Your task to perform on an android device: find photos in the google photos app Image 0: 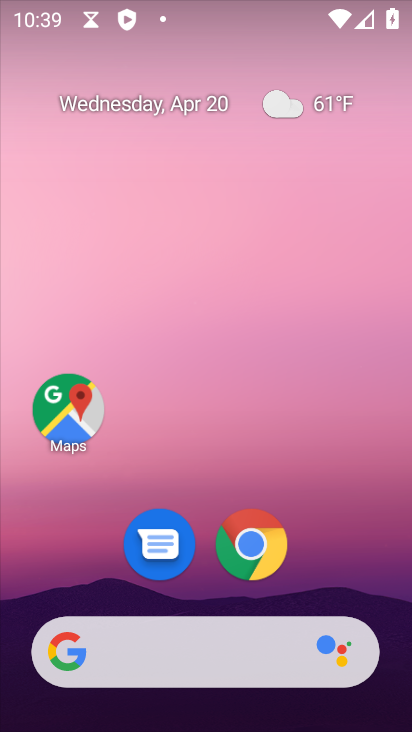
Step 0: drag from (188, 649) to (352, 76)
Your task to perform on an android device: find photos in the google photos app Image 1: 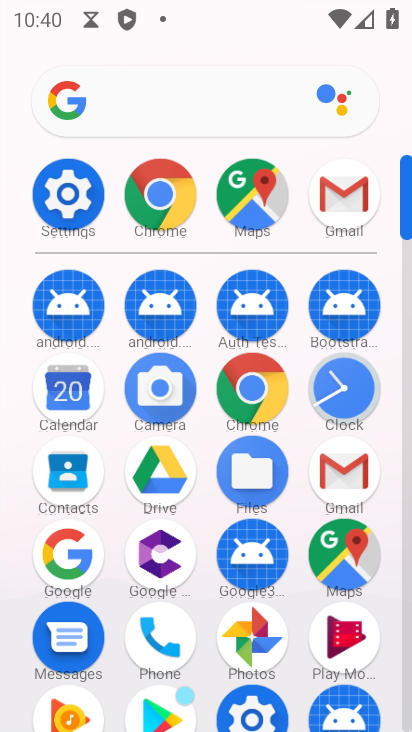
Step 1: click (241, 643)
Your task to perform on an android device: find photos in the google photos app Image 2: 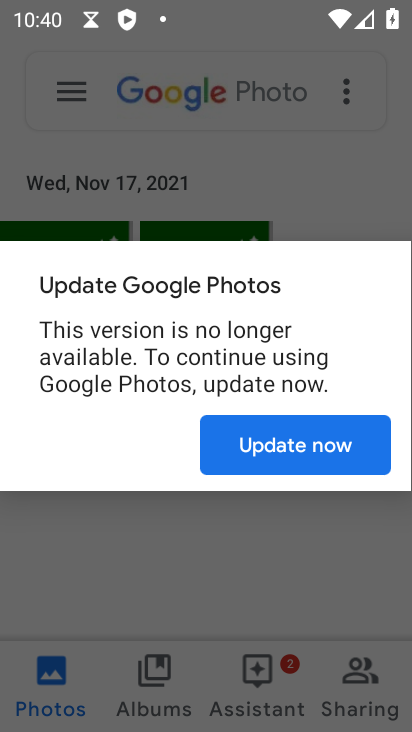
Step 2: click (276, 447)
Your task to perform on an android device: find photos in the google photos app Image 3: 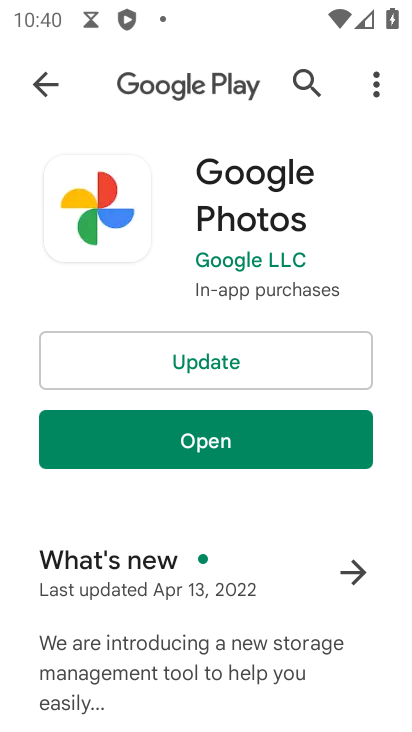
Step 3: click (284, 442)
Your task to perform on an android device: find photos in the google photos app Image 4: 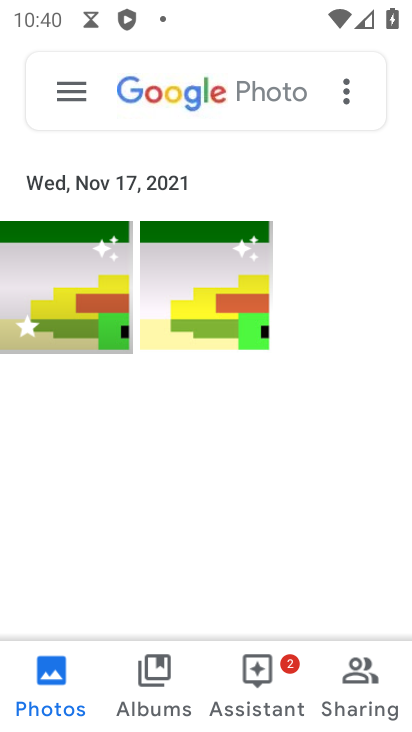
Step 4: task complete